Your task to perform on an android device: Check the news Image 0: 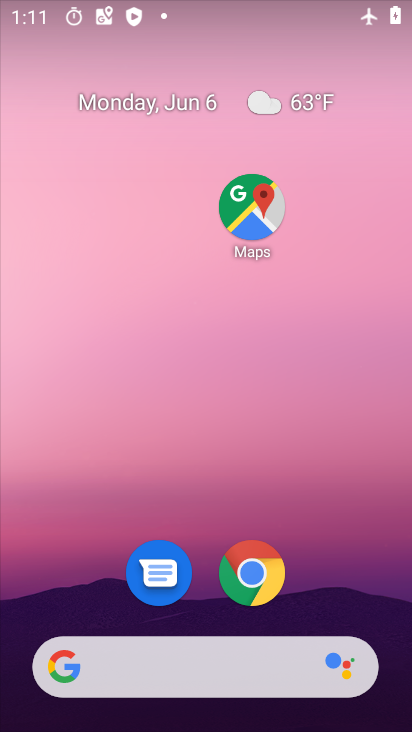
Step 0: drag from (223, 481) to (122, 56)
Your task to perform on an android device: Check the news Image 1: 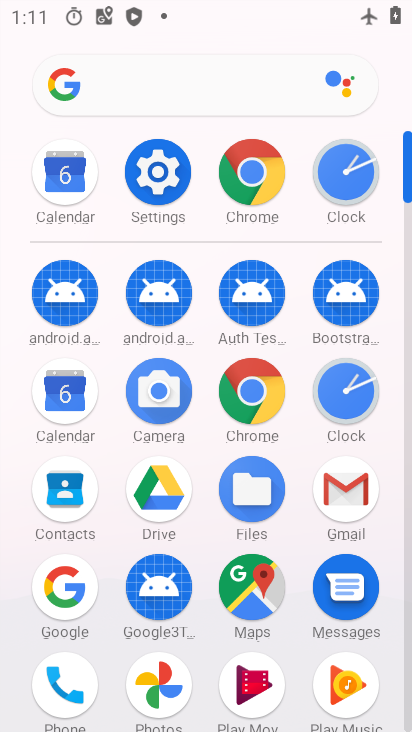
Step 1: click (74, 597)
Your task to perform on an android device: Check the news Image 2: 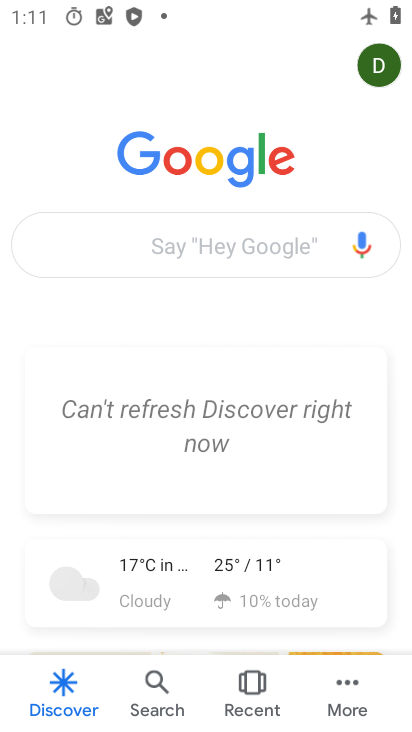
Step 2: task complete